Your task to perform on an android device: allow cookies in the chrome app Image 0: 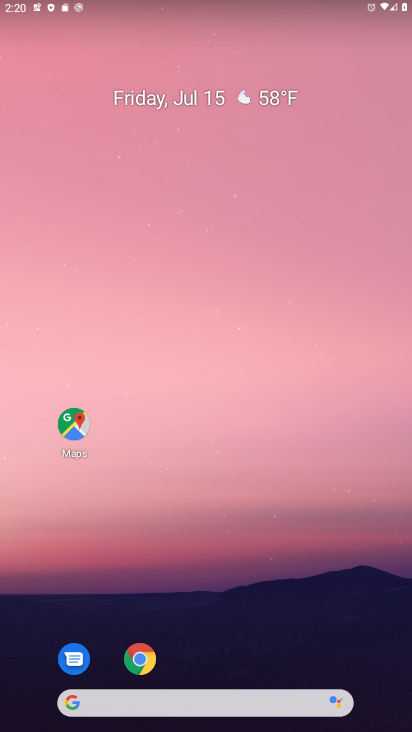
Step 0: click (141, 654)
Your task to perform on an android device: allow cookies in the chrome app Image 1: 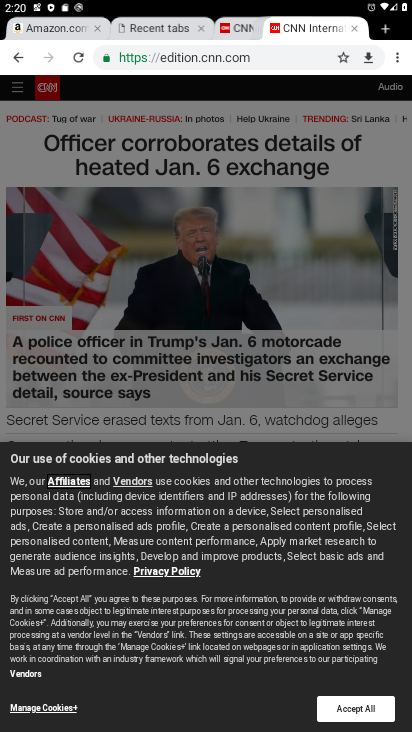
Step 1: click (399, 59)
Your task to perform on an android device: allow cookies in the chrome app Image 2: 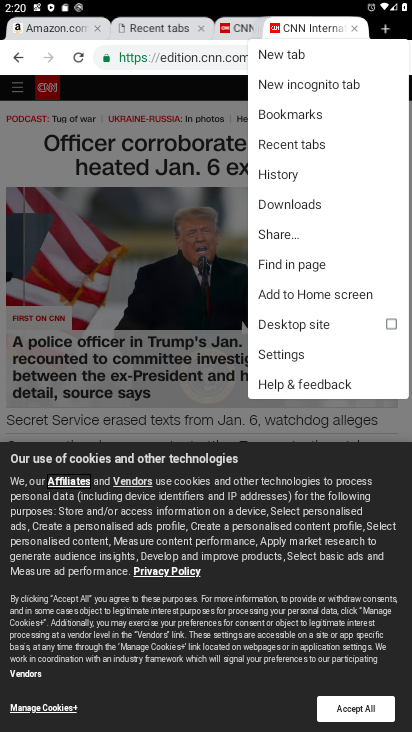
Step 2: click (278, 352)
Your task to perform on an android device: allow cookies in the chrome app Image 3: 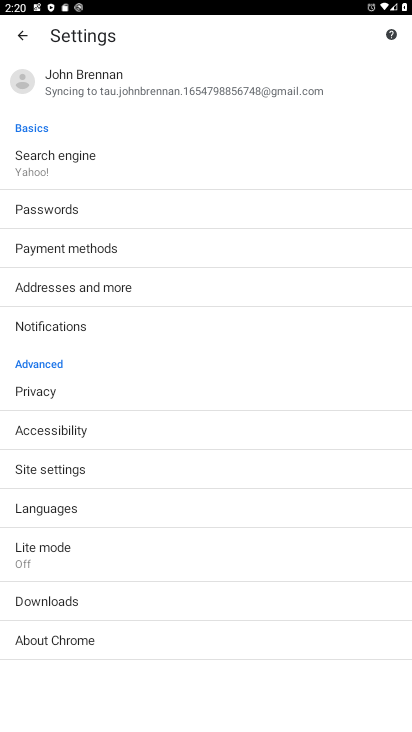
Step 3: click (51, 472)
Your task to perform on an android device: allow cookies in the chrome app Image 4: 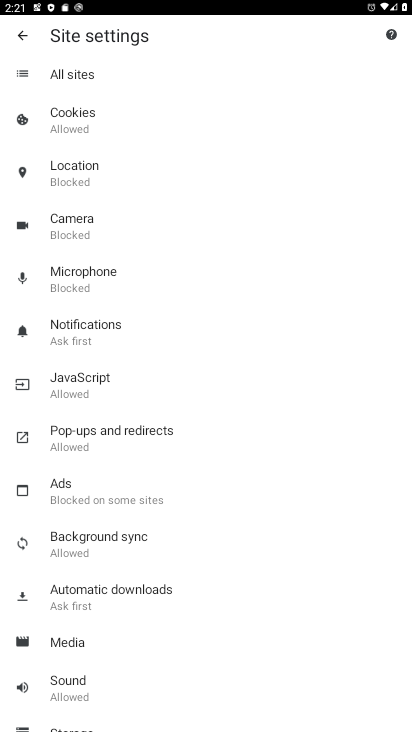
Step 4: click (74, 123)
Your task to perform on an android device: allow cookies in the chrome app Image 5: 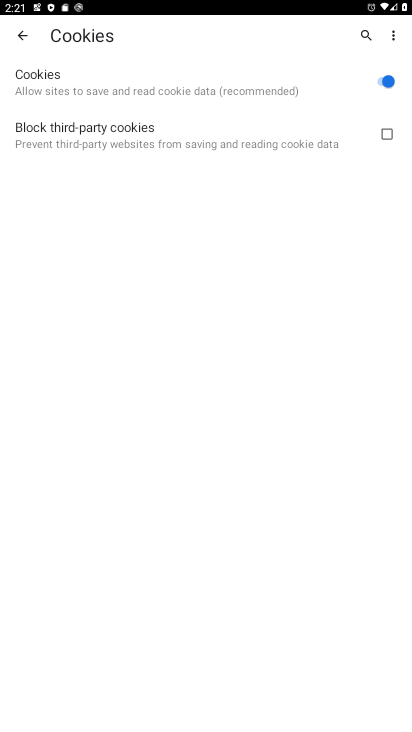
Step 5: task complete